Your task to perform on an android device: change keyboard looks Image 0: 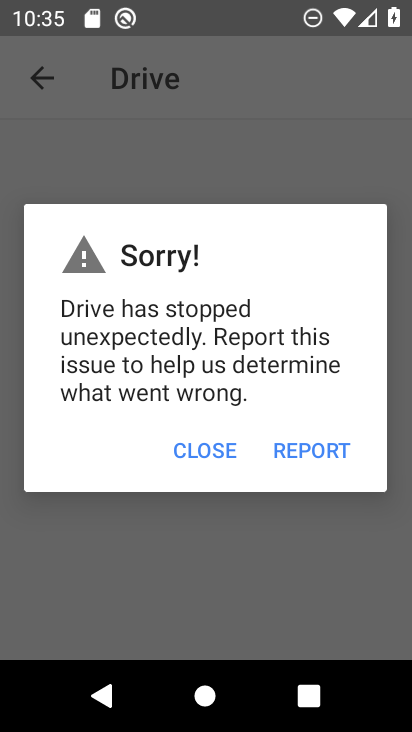
Step 0: press home button
Your task to perform on an android device: change keyboard looks Image 1: 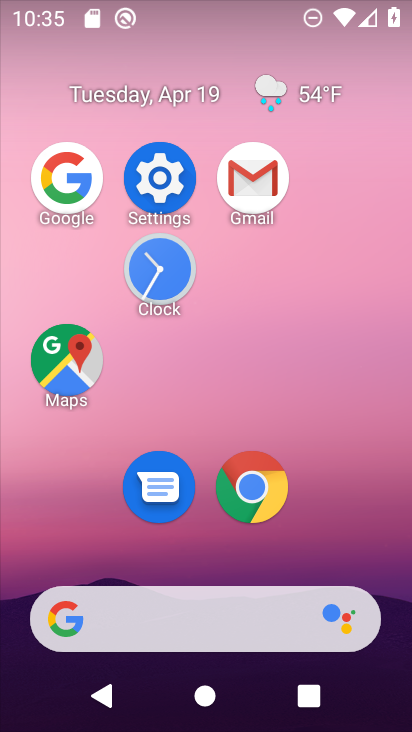
Step 1: click (164, 179)
Your task to perform on an android device: change keyboard looks Image 2: 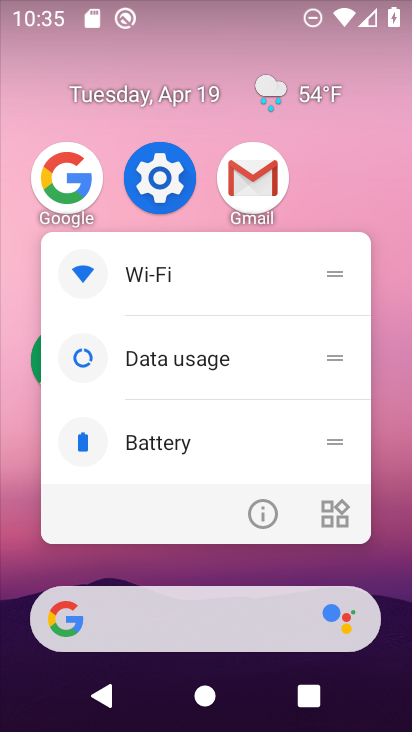
Step 2: click (164, 179)
Your task to perform on an android device: change keyboard looks Image 3: 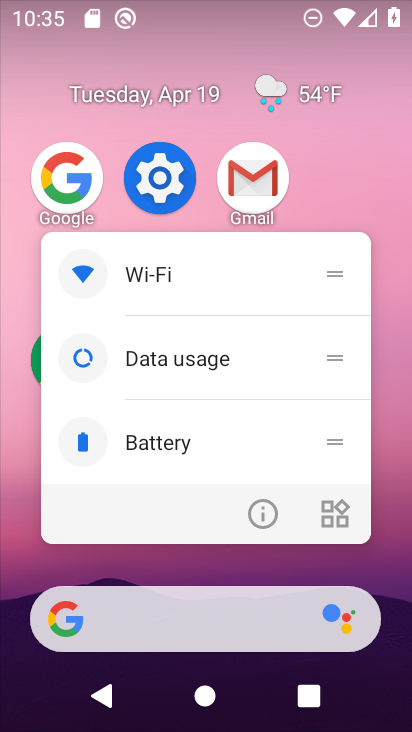
Step 3: click (164, 179)
Your task to perform on an android device: change keyboard looks Image 4: 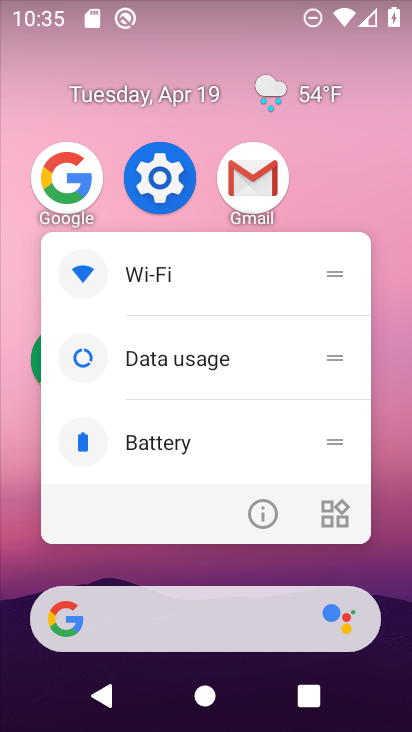
Step 4: click (164, 179)
Your task to perform on an android device: change keyboard looks Image 5: 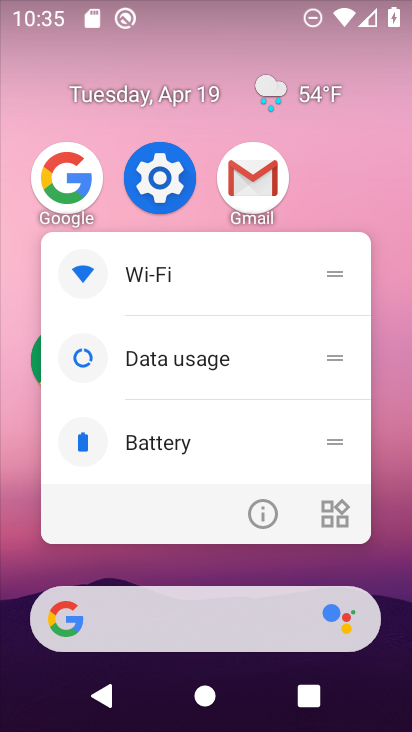
Step 5: click (164, 179)
Your task to perform on an android device: change keyboard looks Image 6: 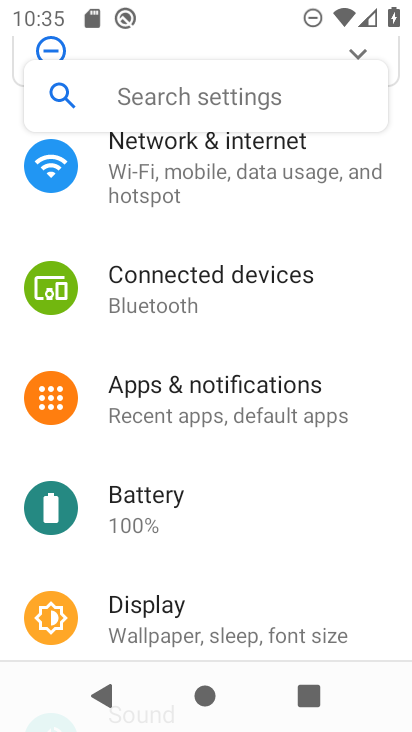
Step 6: drag from (229, 588) to (289, 74)
Your task to perform on an android device: change keyboard looks Image 7: 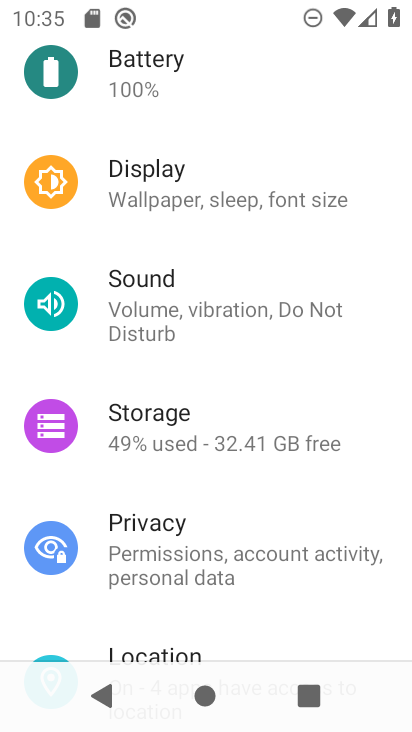
Step 7: drag from (323, 586) to (344, 90)
Your task to perform on an android device: change keyboard looks Image 8: 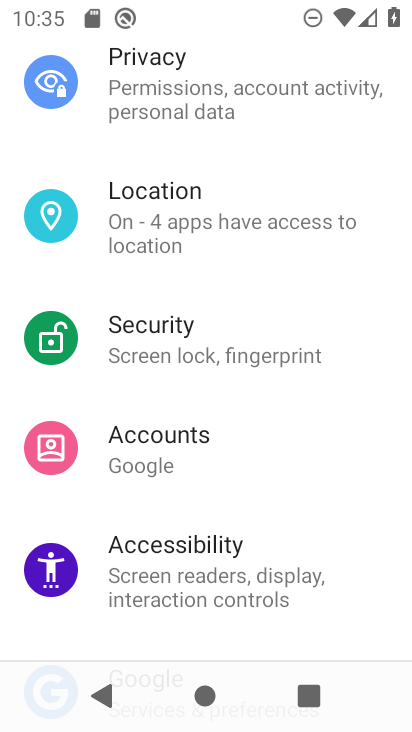
Step 8: drag from (279, 545) to (281, 91)
Your task to perform on an android device: change keyboard looks Image 9: 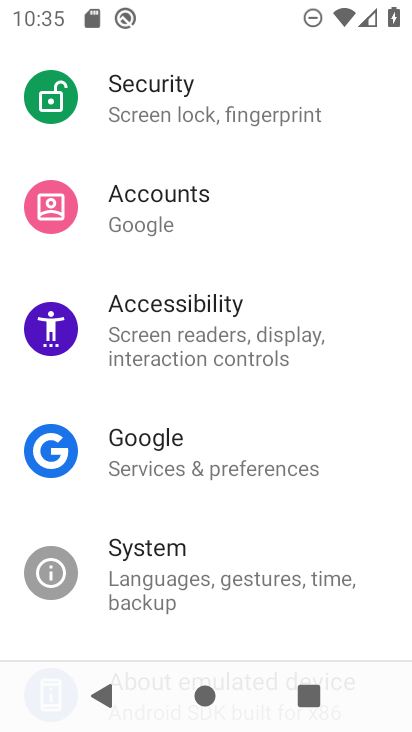
Step 9: click (235, 552)
Your task to perform on an android device: change keyboard looks Image 10: 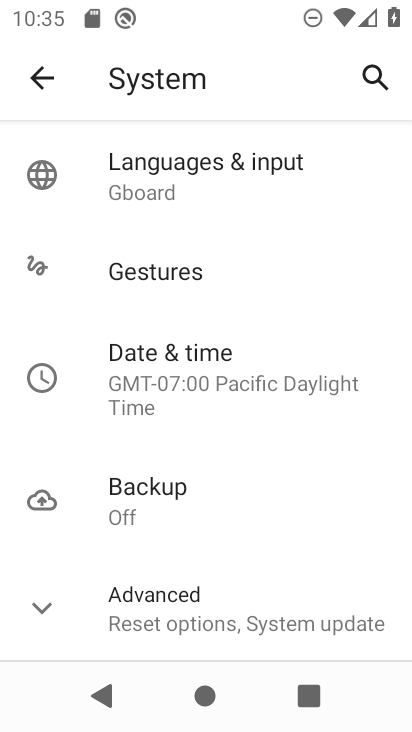
Step 10: click (188, 178)
Your task to perform on an android device: change keyboard looks Image 11: 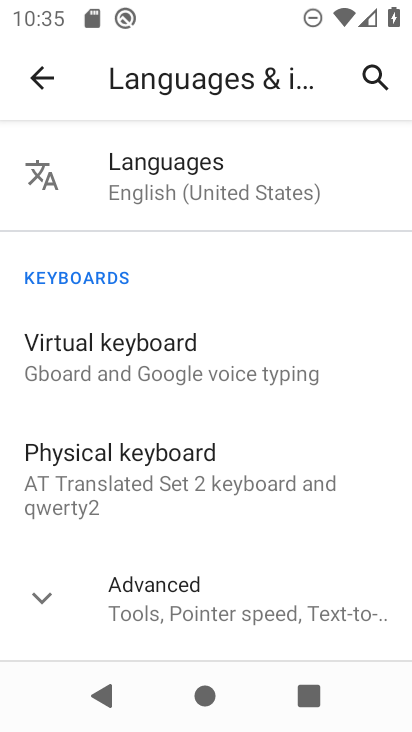
Step 11: click (200, 342)
Your task to perform on an android device: change keyboard looks Image 12: 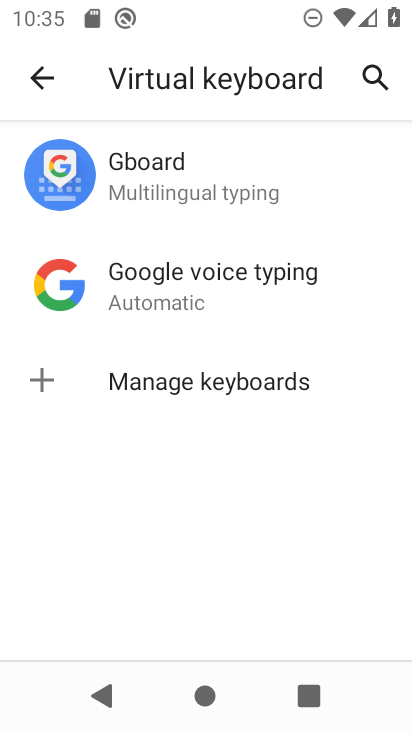
Step 12: click (164, 180)
Your task to perform on an android device: change keyboard looks Image 13: 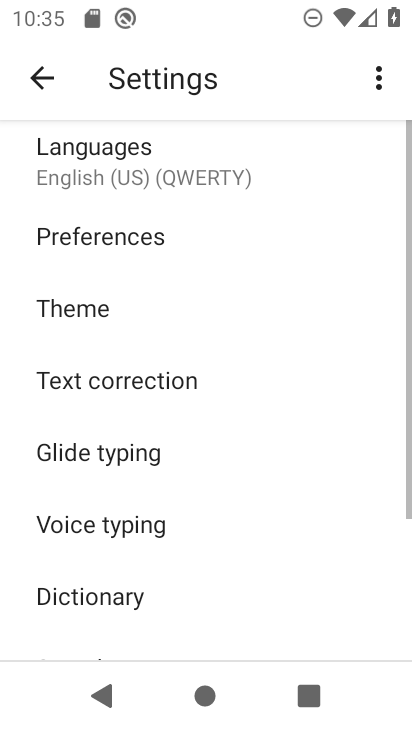
Step 13: click (136, 331)
Your task to perform on an android device: change keyboard looks Image 14: 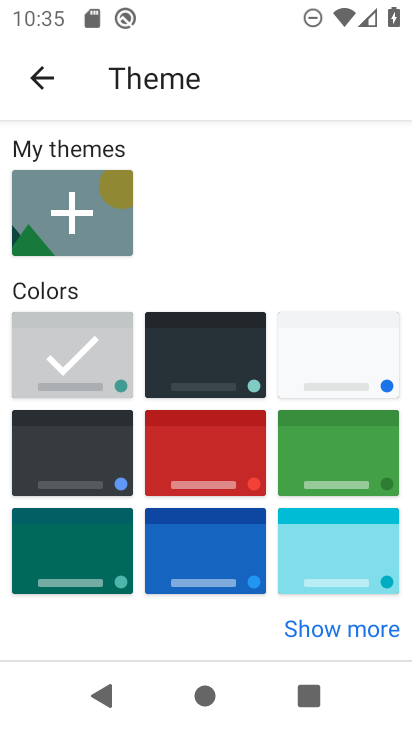
Step 14: click (259, 395)
Your task to perform on an android device: change keyboard looks Image 15: 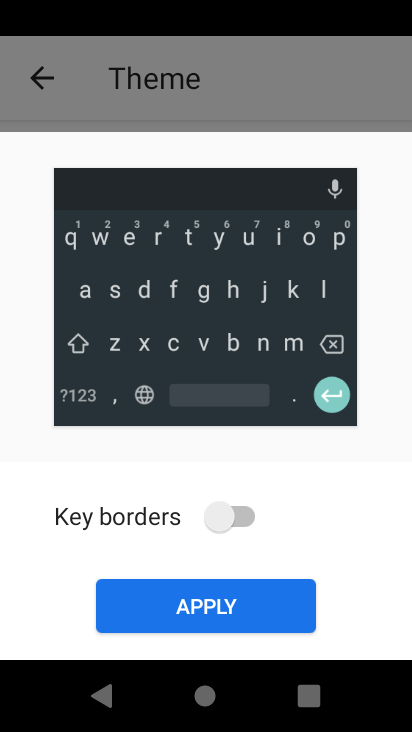
Step 15: click (232, 499)
Your task to perform on an android device: change keyboard looks Image 16: 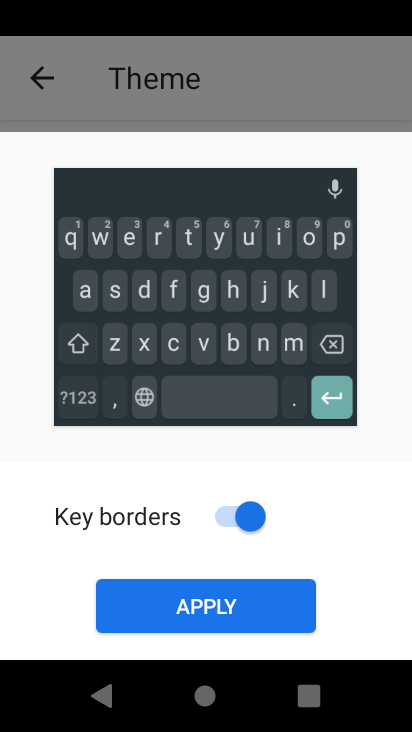
Step 16: click (219, 598)
Your task to perform on an android device: change keyboard looks Image 17: 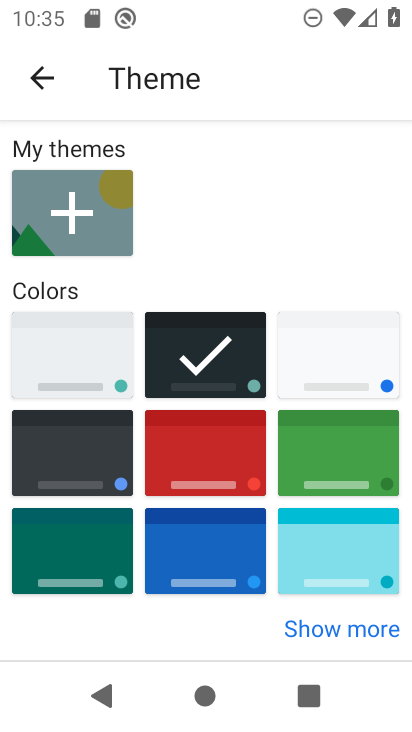
Step 17: task complete